Your task to perform on an android device: Open the calendar and show me this week's events? Image 0: 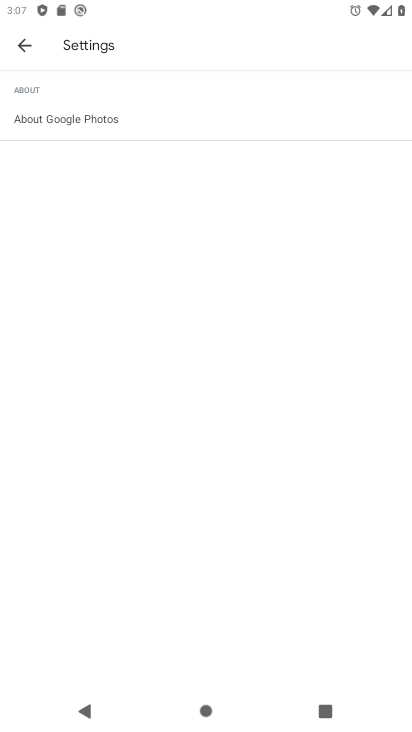
Step 0: press home button
Your task to perform on an android device: Open the calendar and show me this week's events? Image 1: 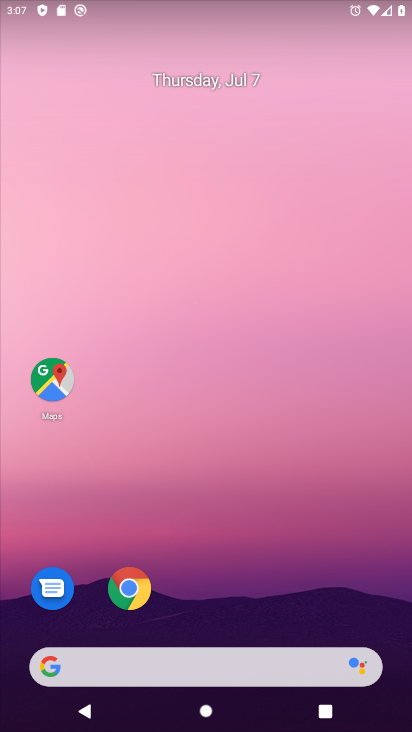
Step 1: drag from (123, 638) to (238, 69)
Your task to perform on an android device: Open the calendar and show me this week's events? Image 2: 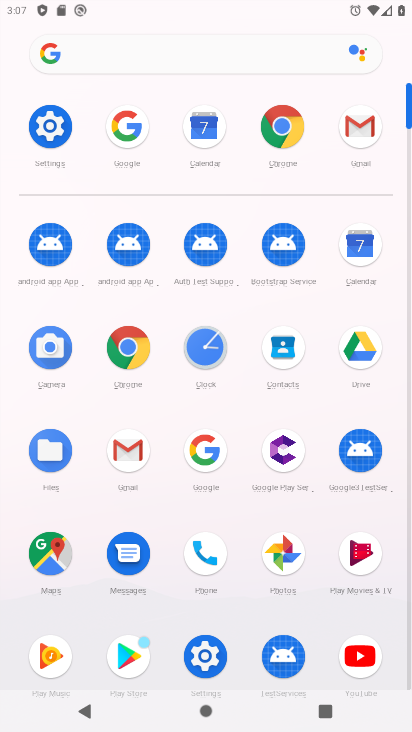
Step 2: click (349, 246)
Your task to perform on an android device: Open the calendar and show me this week's events? Image 3: 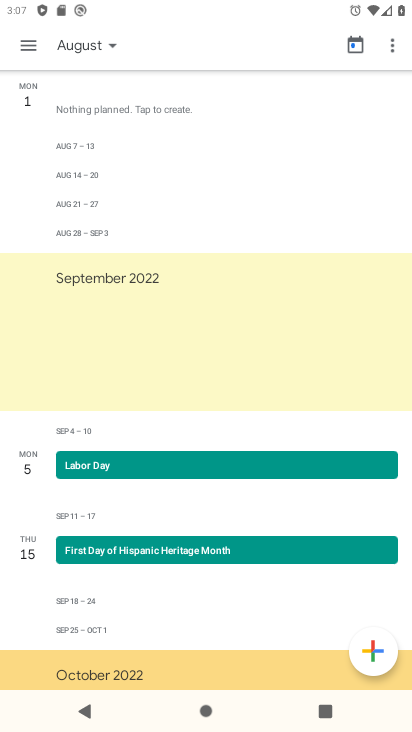
Step 3: click (85, 47)
Your task to perform on an android device: Open the calendar and show me this week's events? Image 4: 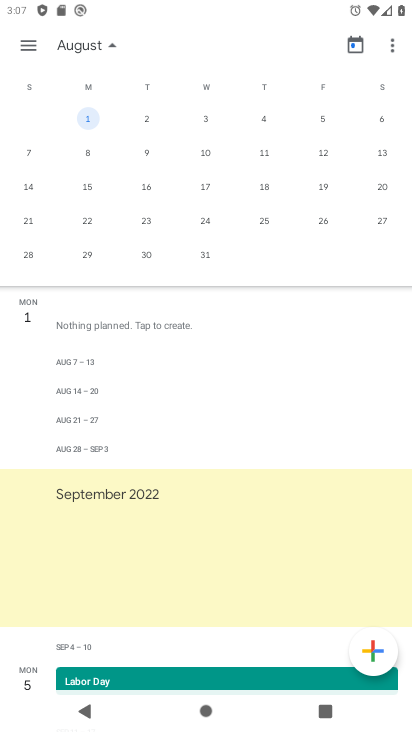
Step 4: drag from (57, 163) to (408, 139)
Your task to perform on an android device: Open the calendar and show me this week's events? Image 5: 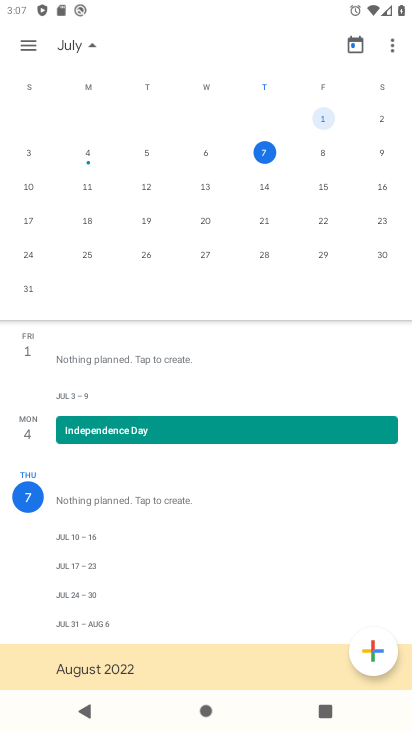
Step 5: click (315, 158)
Your task to perform on an android device: Open the calendar and show me this week's events? Image 6: 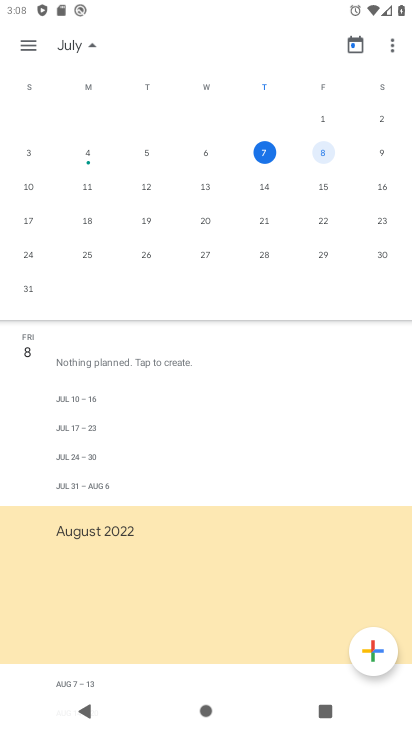
Step 6: task complete